Your task to perform on an android device: Is it going to rain today? Image 0: 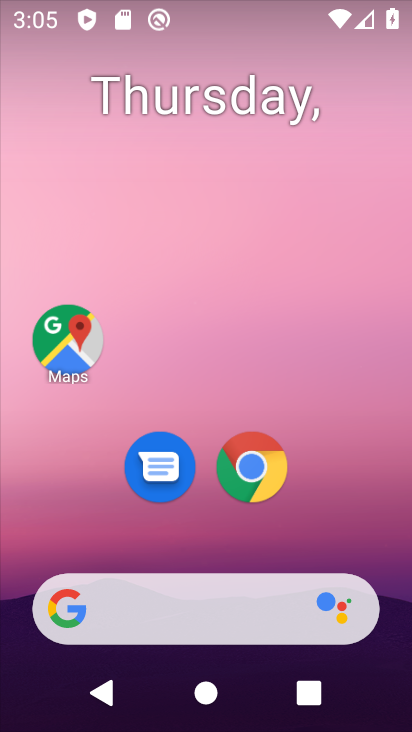
Step 0: drag from (26, 252) to (398, 208)
Your task to perform on an android device: Is it going to rain today? Image 1: 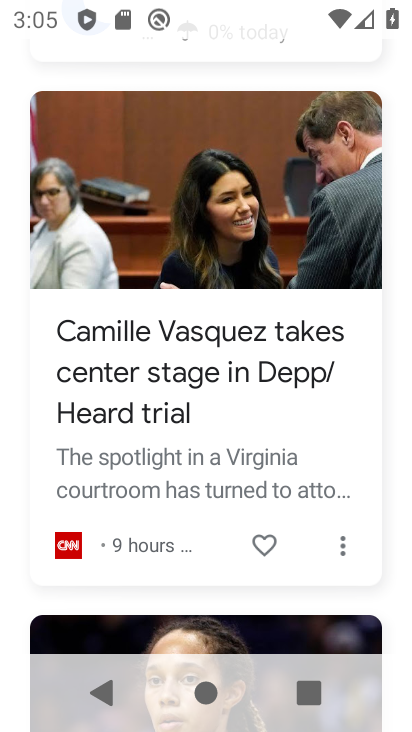
Step 1: drag from (195, 206) to (179, 664)
Your task to perform on an android device: Is it going to rain today? Image 2: 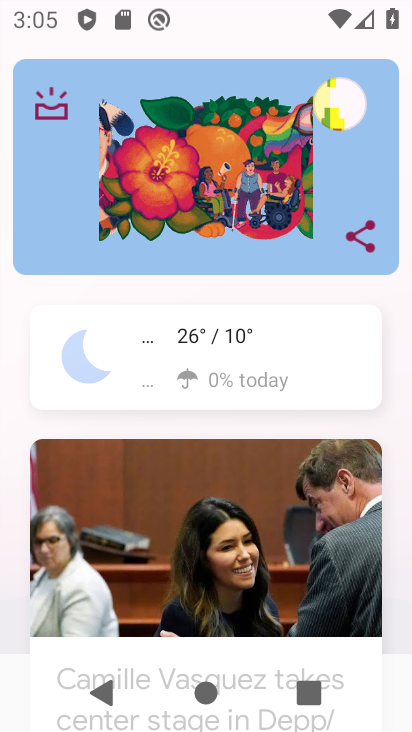
Step 2: click (106, 363)
Your task to perform on an android device: Is it going to rain today? Image 3: 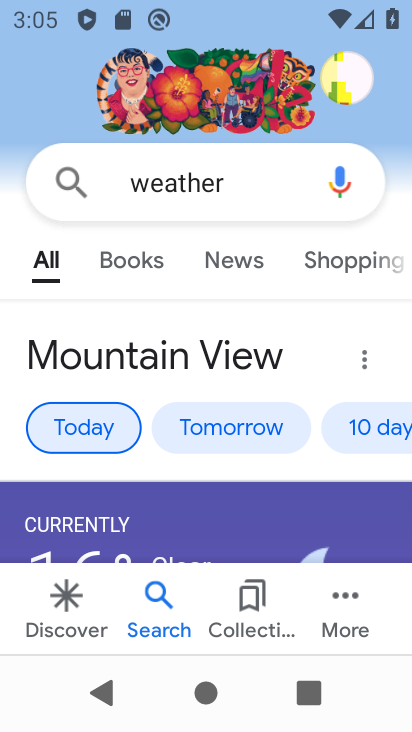
Step 3: task complete